Your task to perform on an android device: check storage Image 0: 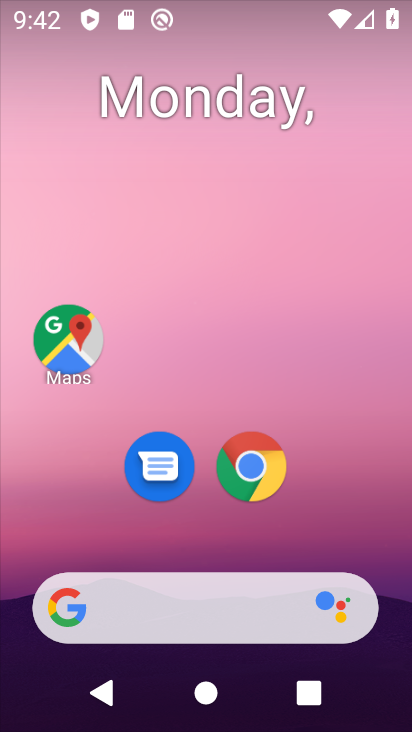
Step 0: drag from (172, 529) to (196, 195)
Your task to perform on an android device: check storage Image 1: 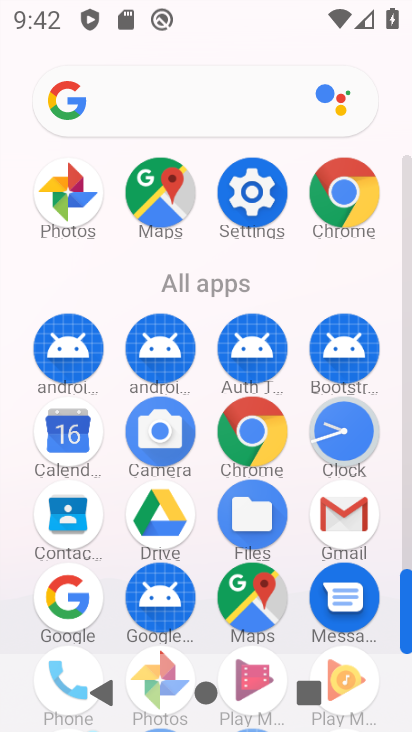
Step 1: click (249, 199)
Your task to perform on an android device: check storage Image 2: 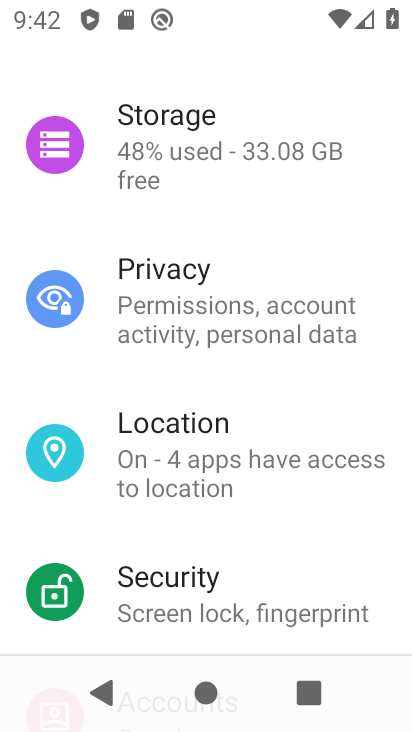
Step 2: click (241, 161)
Your task to perform on an android device: check storage Image 3: 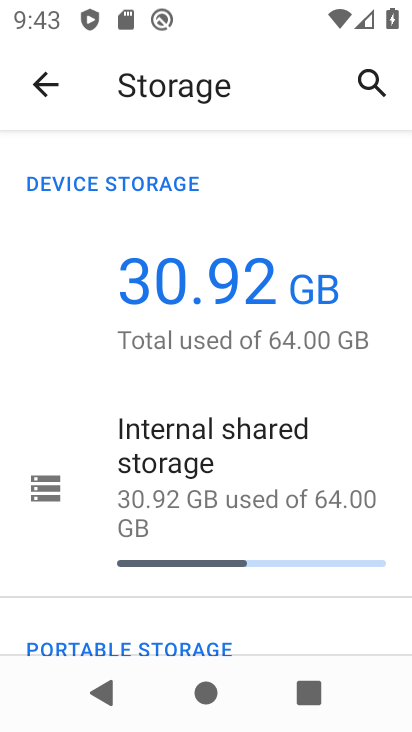
Step 3: task complete